Your task to perform on an android device: Open sound settings Image 0: 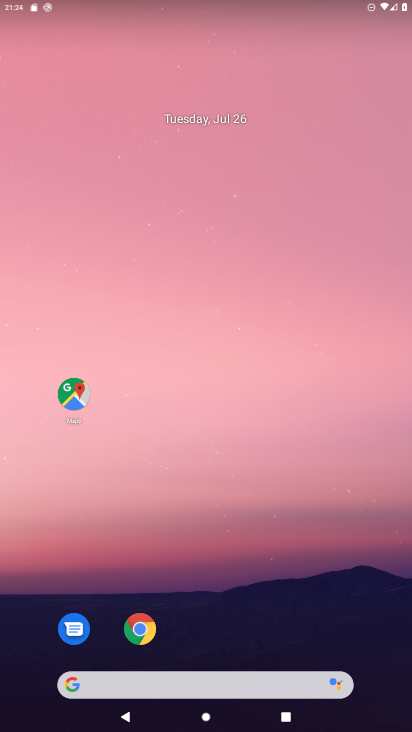
Step 0: drag from (213, 656) to (209, 264)
Your task to perform on an android device: Open sound settings Image 1: 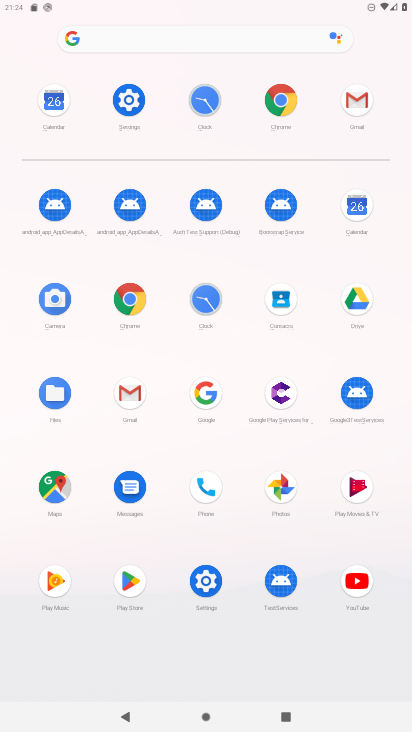
Step 1: click (198, 580)
Your task to perform on an android device: Open sound settings Image 2: 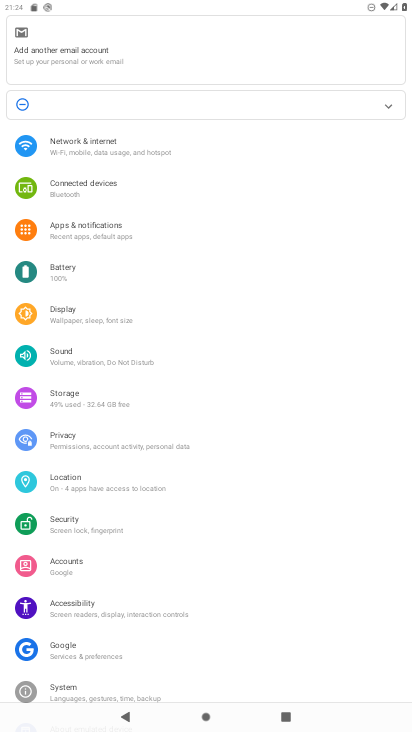
Step 2: click (72, 356)
Your task to perform on an android device: Open sound settings Image 3: 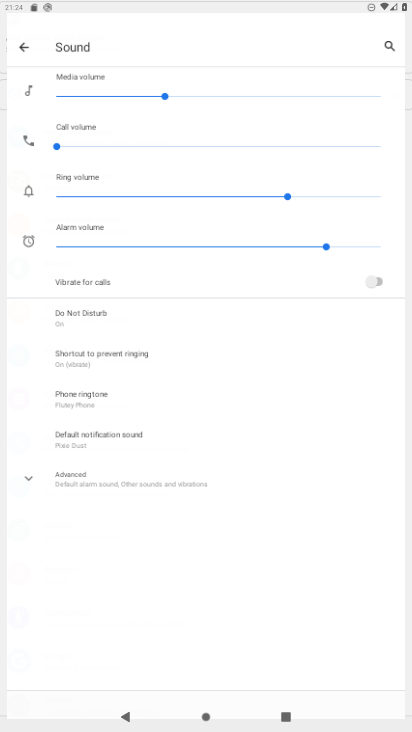
Step 3: task complete